Your task to perform on an android device: Go to eBay Image 0: 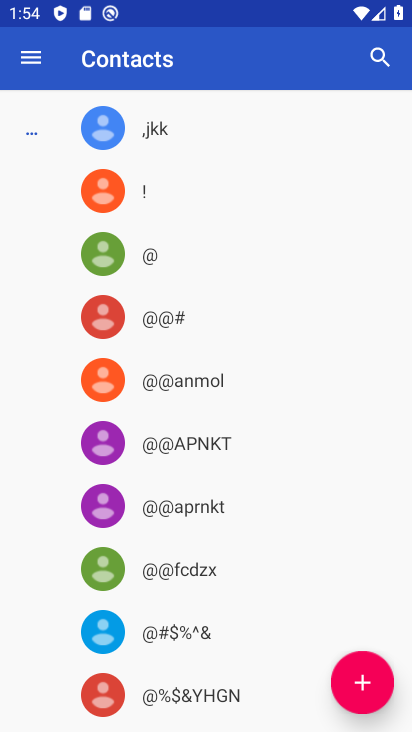
Step 0: press home button
Your task to perform on an android device: Go to eBay Image 1: 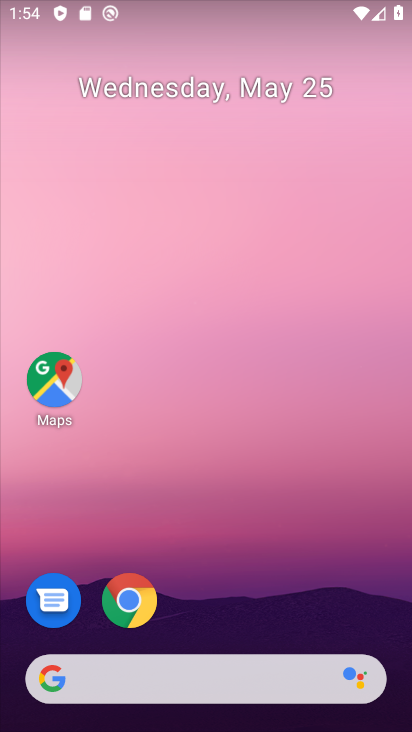
Step 1: click (133, 595)
Your task to perform on an android device: Go to eBay Image 2: 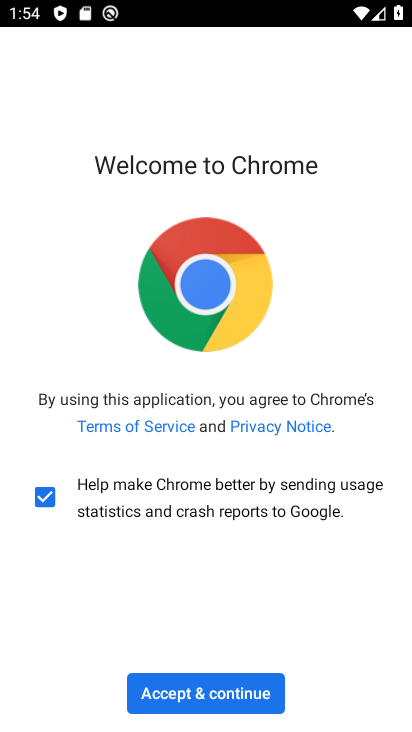
Step 2: click (227, 685)
Your task to perform on an android device: Go to eBay Image 3: 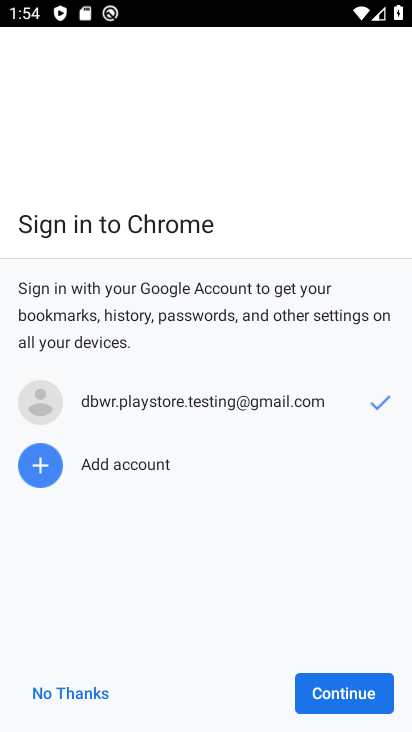
Step 3: click (322, 702)
Your task to perform on an android device: Go to eBay Image 4: 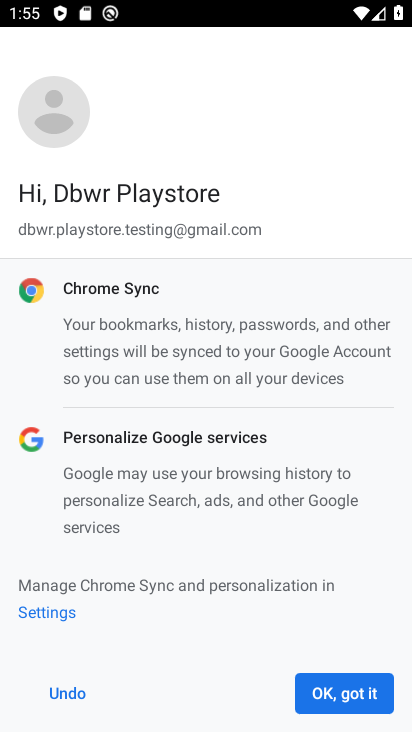
Step 4: click (317, 699)
Your task to perform on an android device: Go to eBay Image 5: 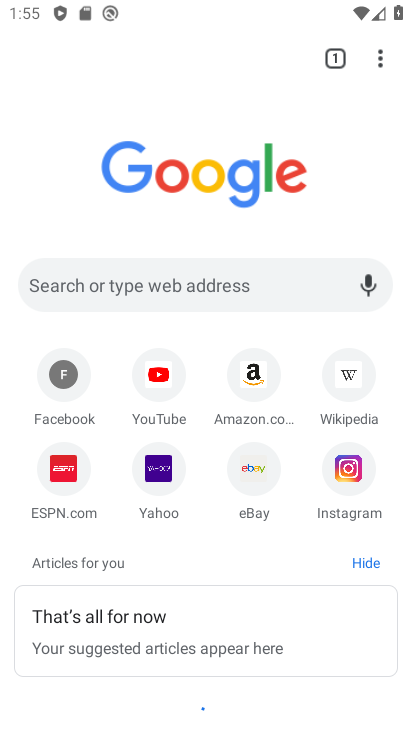
Step 5: click (209, 299)
Your task to perform on an android device: Go to eBay Image 6: 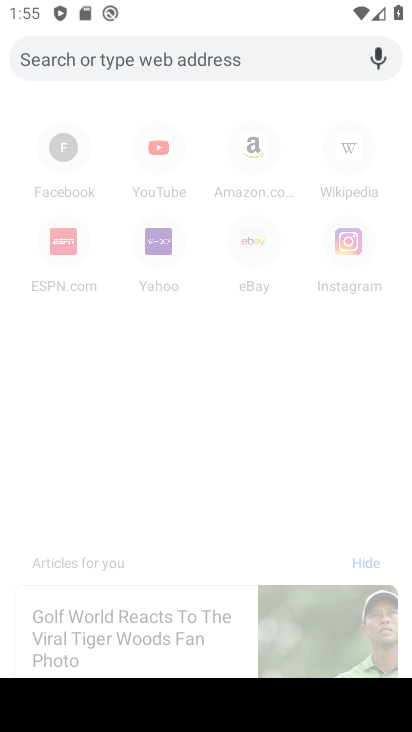
Step 6: type "ebay"
Your task to perform on an android device: Go to eBay Image 7: 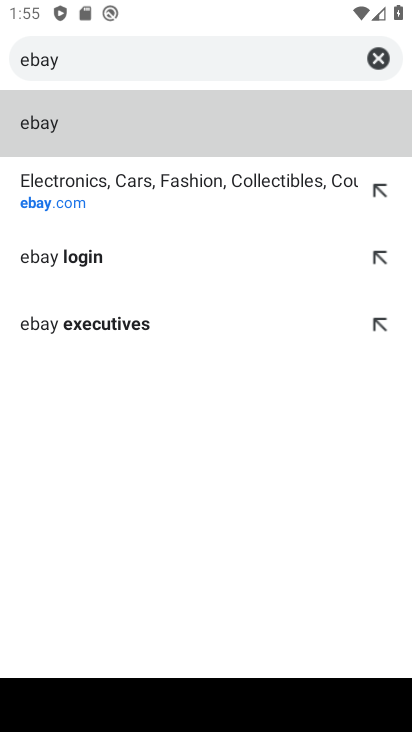
Step 7: click (25, 207)
Your task to perform on an android device: Go to eBay Image 8: 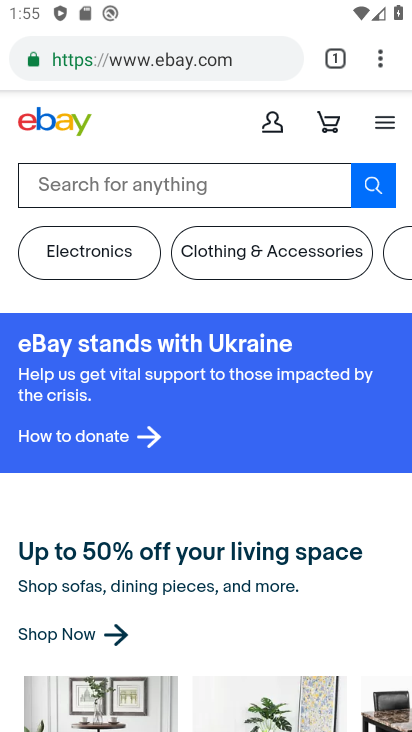
Step 8: task complete